Your task to perform on an android device: turn on sleep mode Image 0: 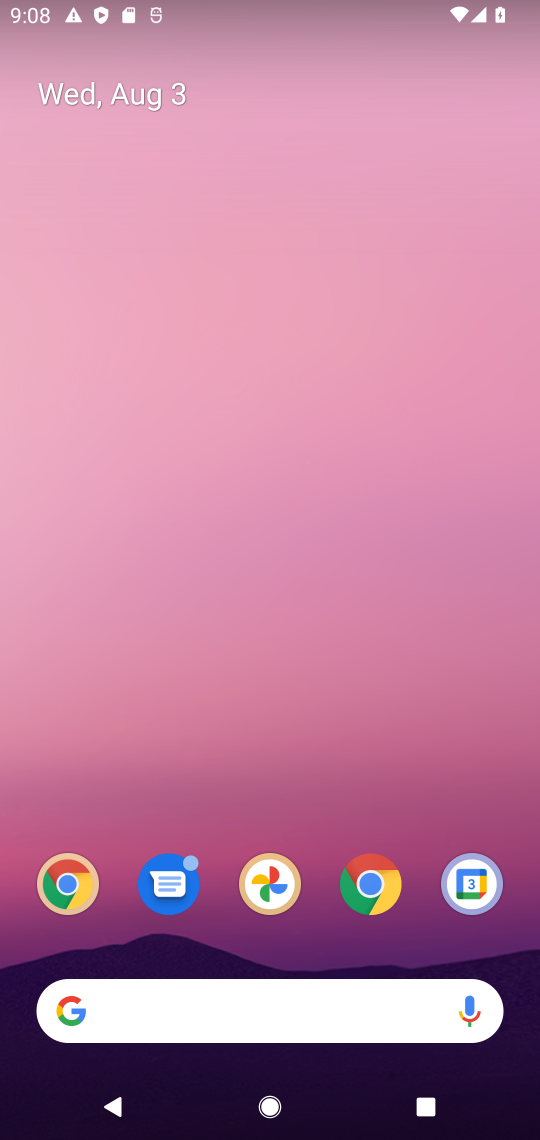
Step 0: press home button
Your task to perform on an android device: turn on sleep mode Image 1: 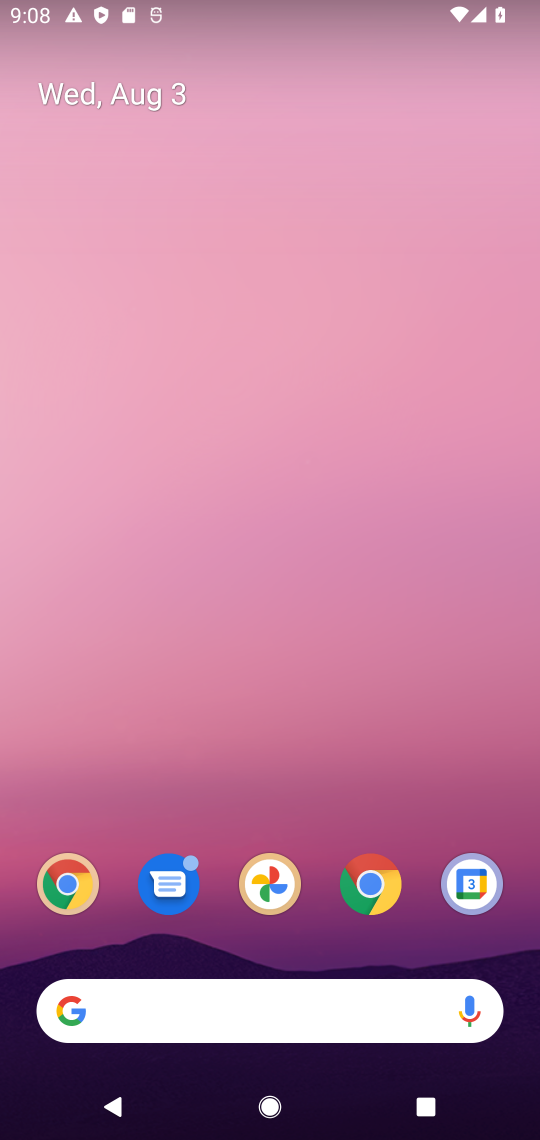
Step 1: drag from (268, 949) to (302, 11)
Your task to perform on an android device: turn on sleep mode Image 2: 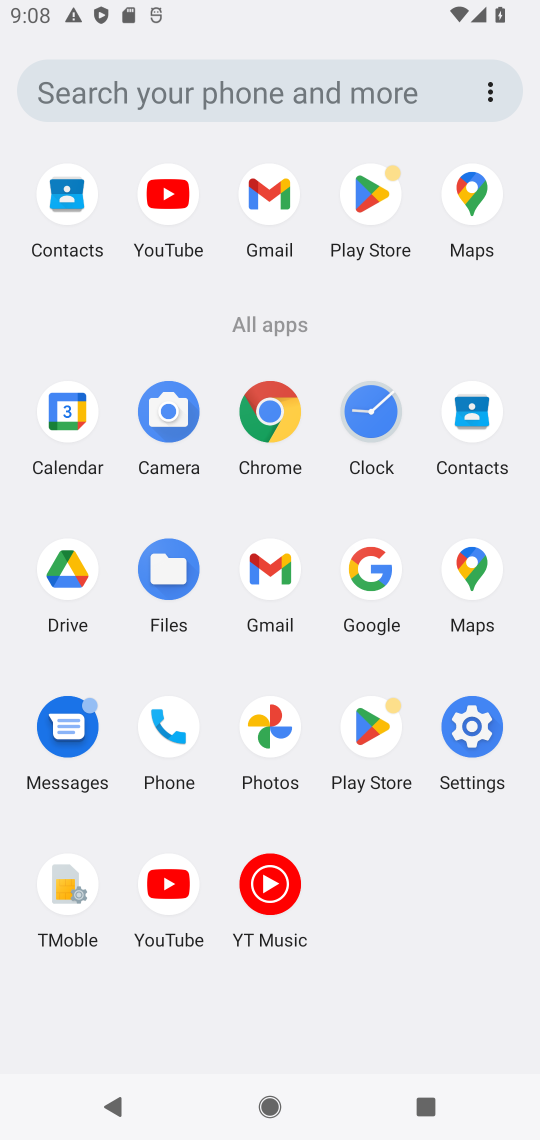
Step 2: click (438, 722)
Your task to perform on an android device: turn on sleep mode Image 3: 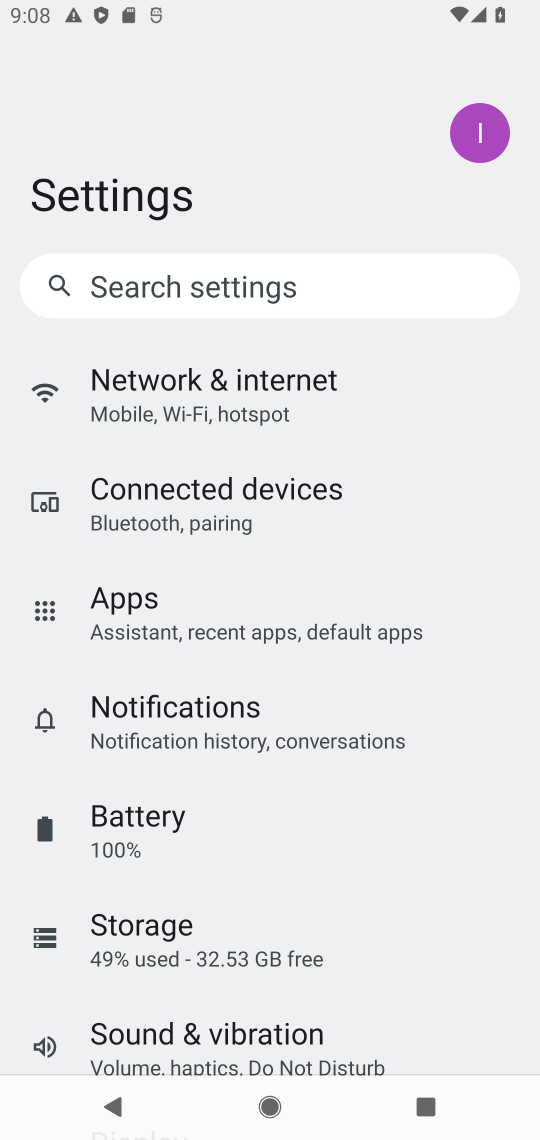
Step 3: drag from (167, 840) to (143, 263)
Your task to perform on an android device: turn on sleep mode Image 4: 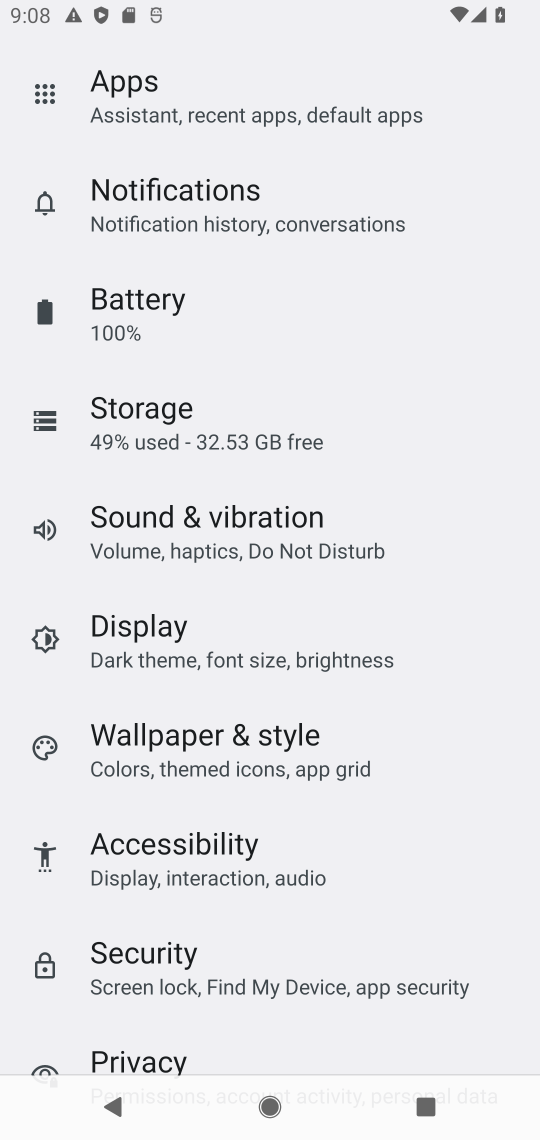
Step 4: click (86, 615)
Your task to perform on an android device: turn on sleep mode Image 5: 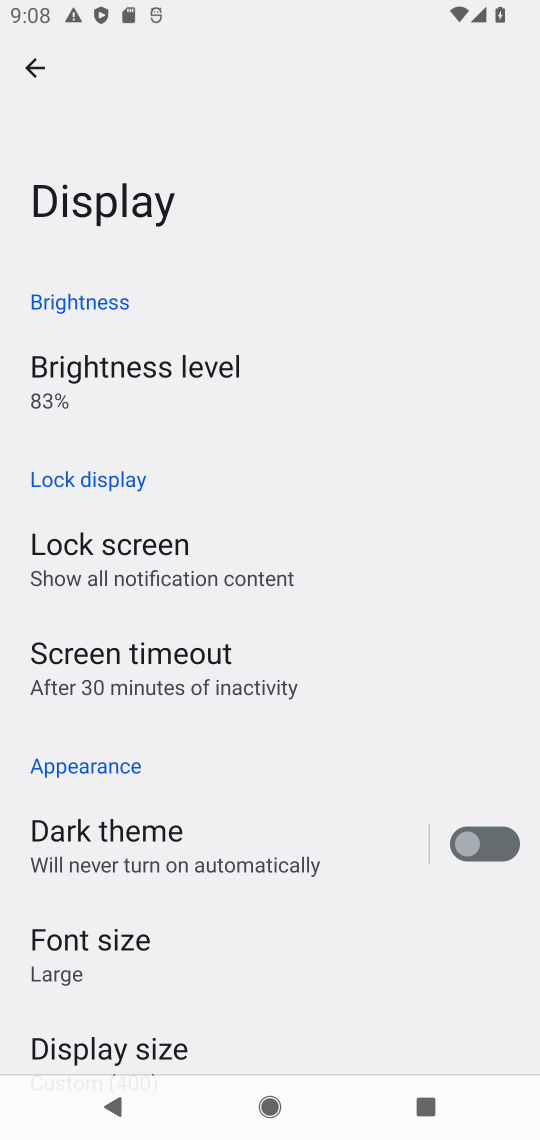
Step 5: task complete